Your task to perform on an android device: open wifi settings Image 0: 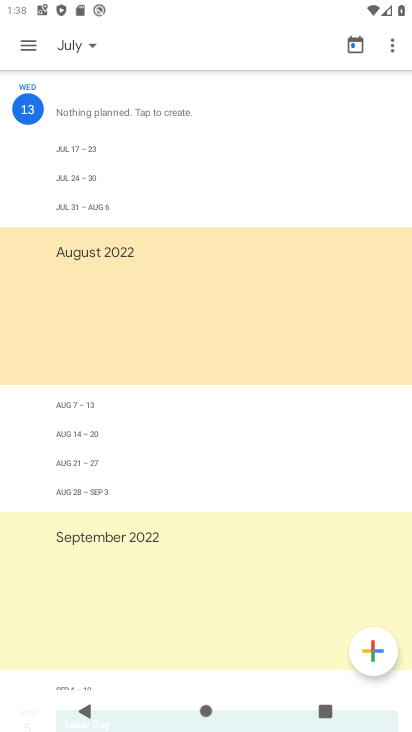
Step 0: press home button
Your task to perform on an android device: open wifi settings Image 1: 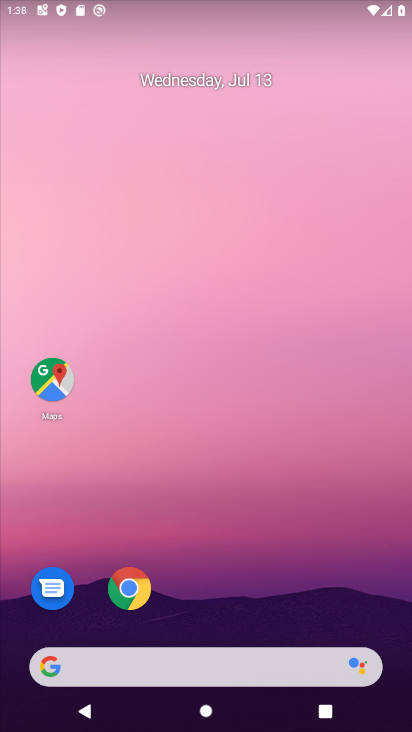
Step 1: drag from (231, 638) to (304, 294)
Your task to perform on an android device: open wifi settings Image 2: 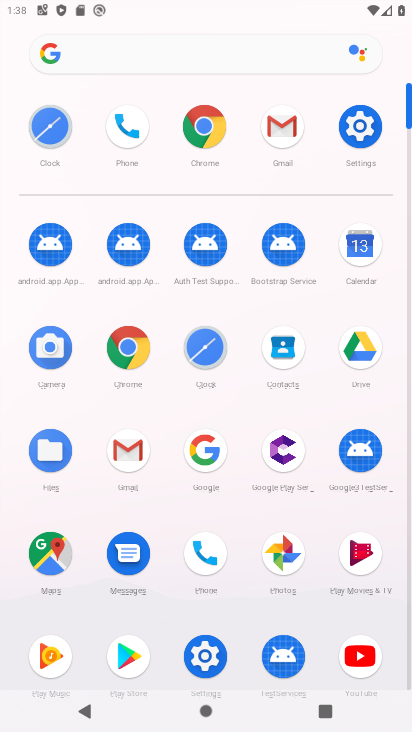
Step 2: click (378, 131)
Your task to perform on an android device: open wifi settings Image 3: 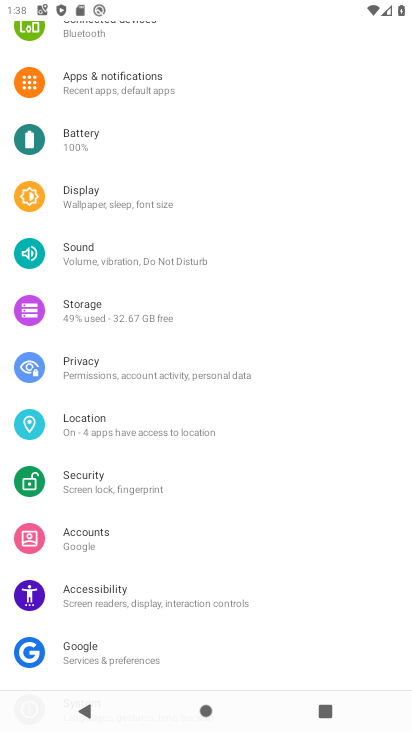
Step 3: drag from (147, 60) to (178, 353)
Your task to perform on an android device: open wifi settings Image 4: 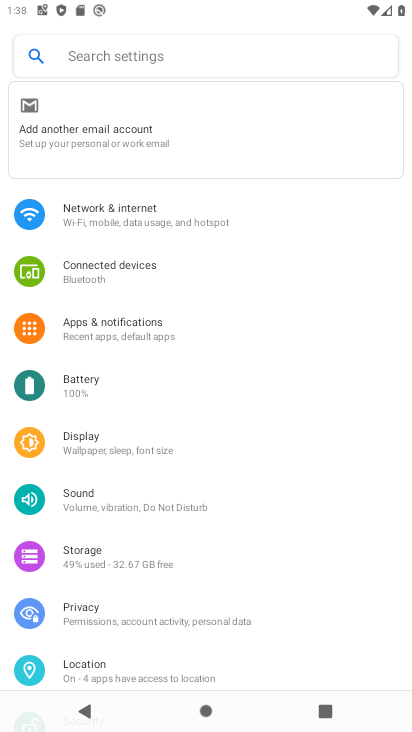
Step 4: click (165, 223)
Your task to perform on an android device: open wifi settings Image 5: 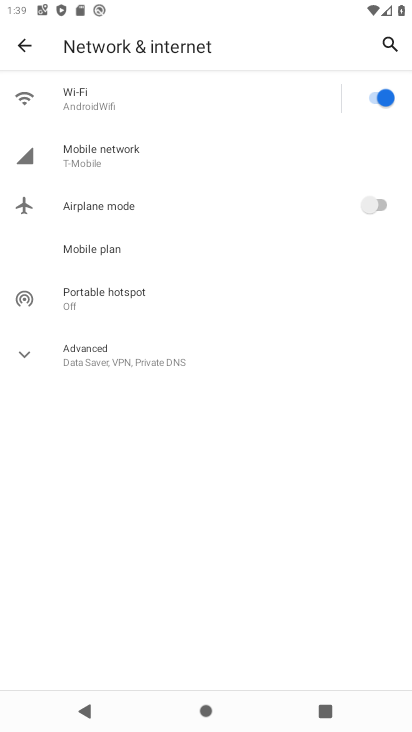
Step 5: click (151, 80)
Your task to perform on an android device: open wifi settings Image 6: 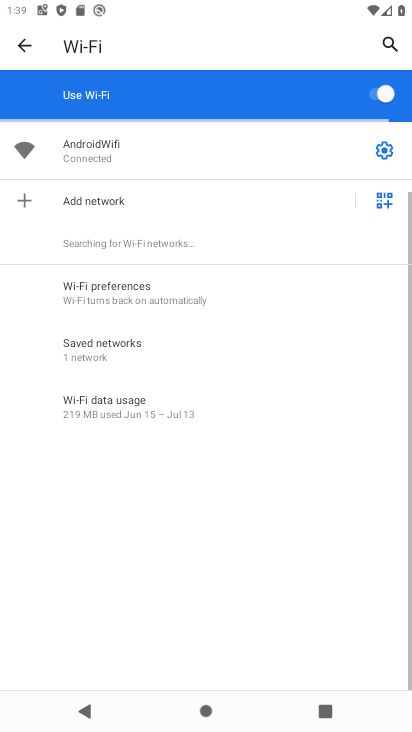
Step 6: click (394, 145)
Your task to perform on an android device: open wifi settings Image 7: 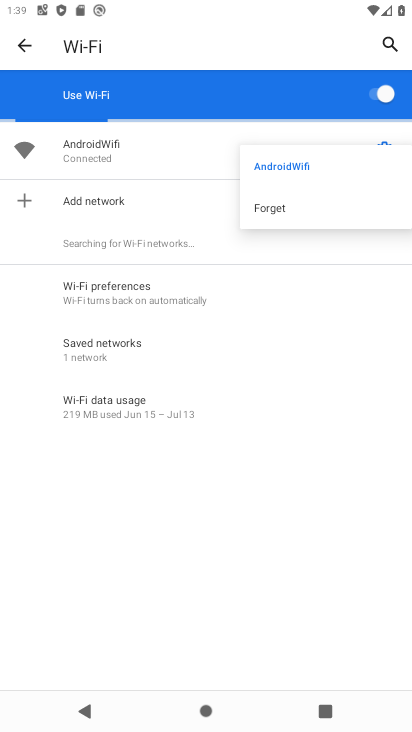
Step 7: click (319, 345)
Your task to perform on an android device: open wifi settings Image 8: 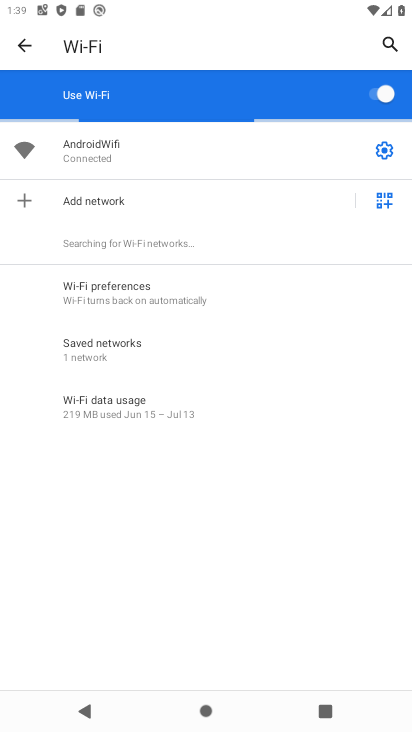
Step 8: click (389, 153)
Your task to perform on an android device: open wifi settings Image 9: 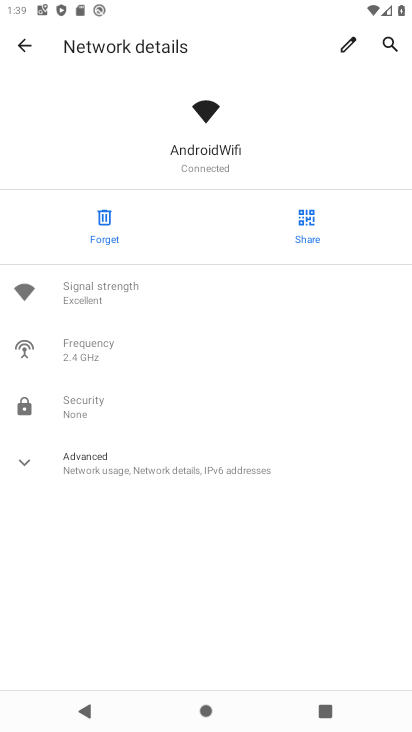
Step 9: click (187, 469)
Your task to perform on an android device: open wifi settings Image 10: 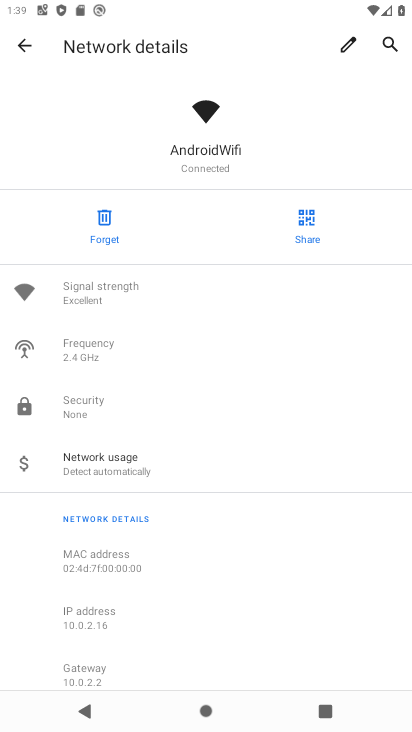
Step 10: task complete